Your task to perform on an android device: turn off smart reply in the gmail app Image 0: 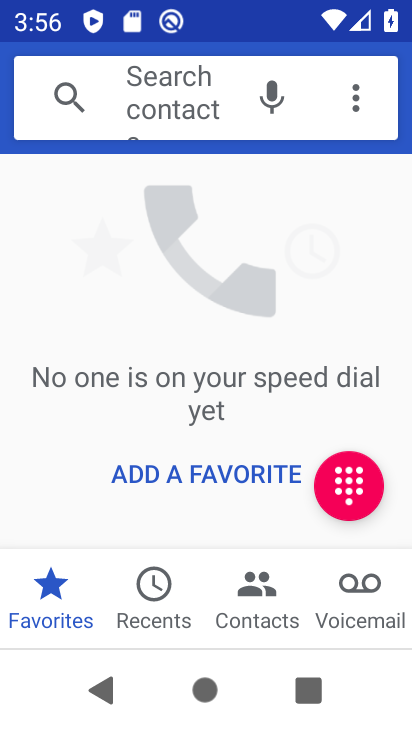
Step 0: press home button
Your task to perform on an android device: turn off smart reply in the gmail app Image 1: 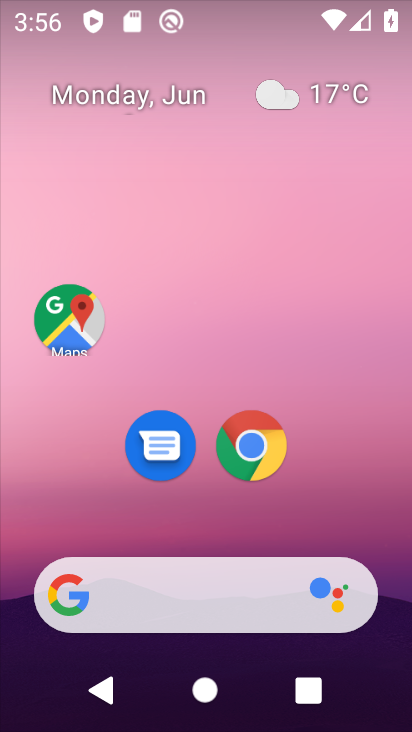
Step 1: drag from (227, 528) to (160, 65)
Your task to perform on an android device: turn off smart reply in the gmail app Image 2: 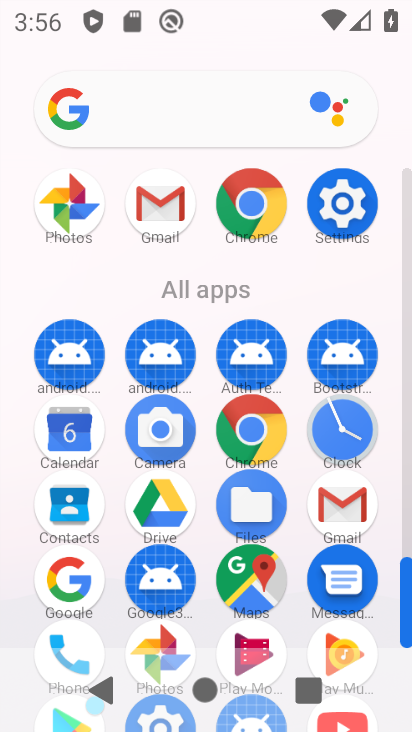
Step 2: click (161, 218)
Your task to perform on an android device: turn off smart reply in the gmail app Image 3: 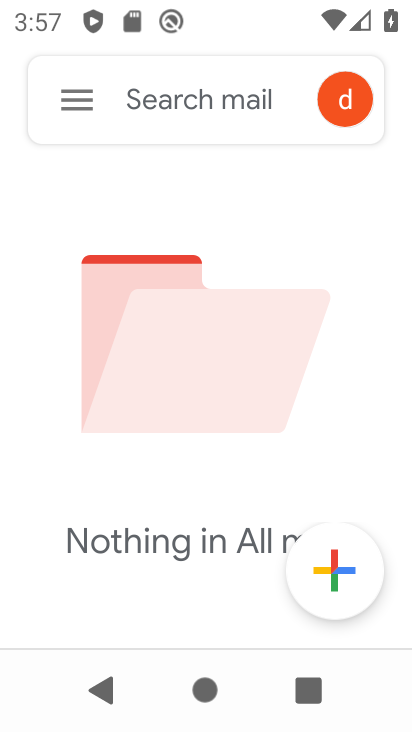
Step 3: click (76, 97)
Your task to perform on an android device: turn off smart reply in the gmail app Image 4: 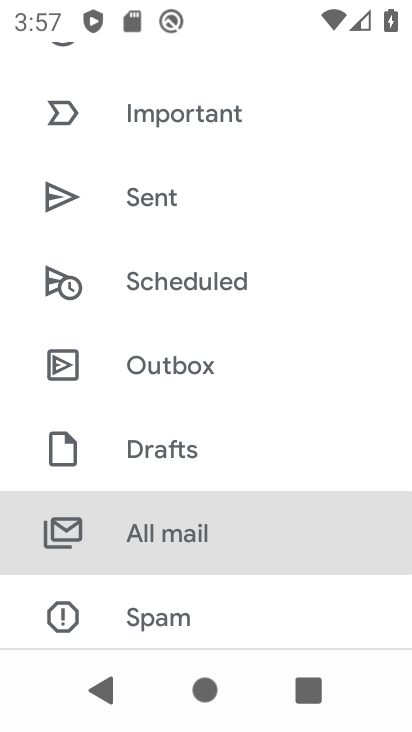
Step 4: drag from (256, 333) to (269, 498)
Your task to perform on an android device: turn off smart reply in the gmail app Image 5: 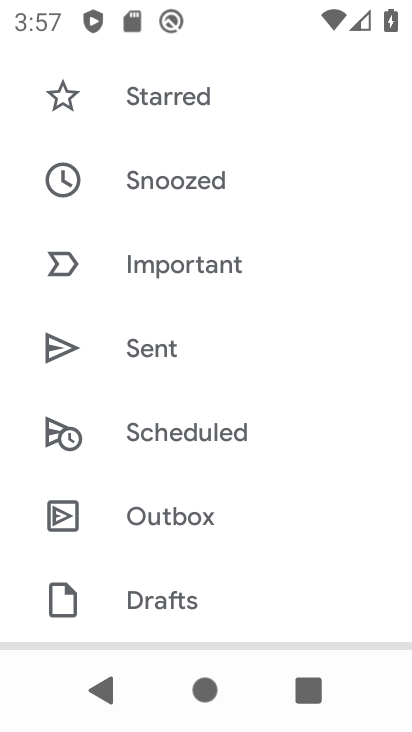
Step 5: drag from (264, 279) to (264, 484)
Your task to perform on an android device: turn off smart reply in the gmail app Image 6: 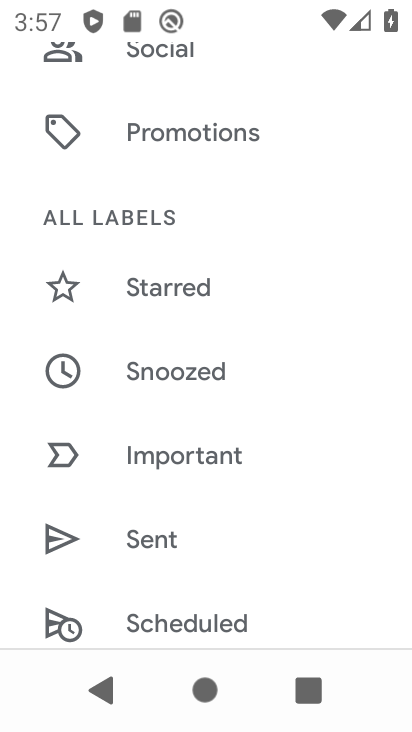
Step 6: drag from (265, 375) to (248, 550)
Your task to perform on an android device: turn off smart reply in the gmail app Image 7: 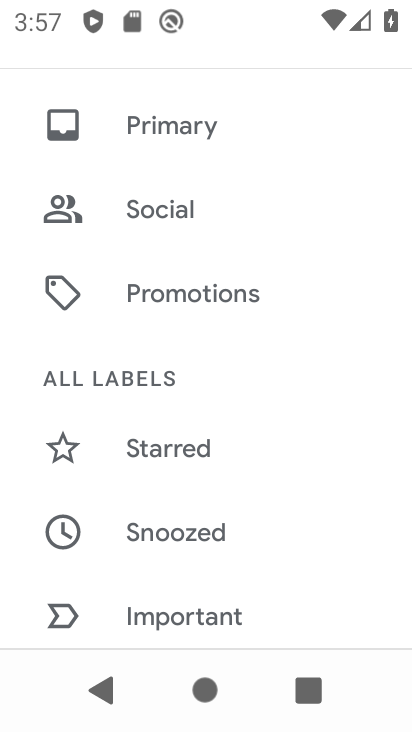
Step 7: drag from (230, 417) to (222, 615)
Your task to perform on an android device: turn off smart reply in the gmail app Image 8: 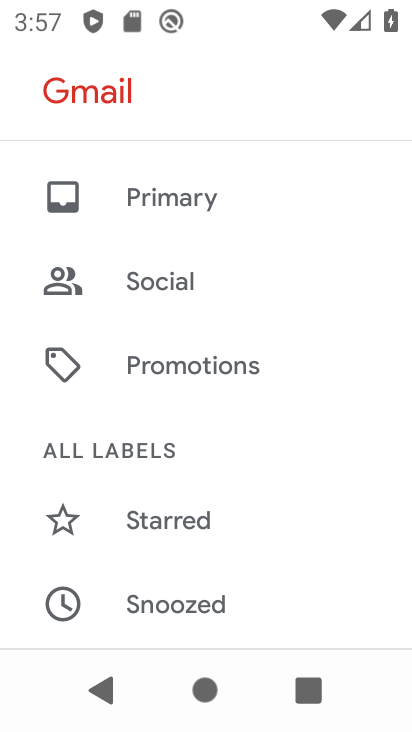
Step 8: drag from (281, 363) to (281, 561)
Your task to perform on an android device: turn off smart reply in the gmail app Image 9: 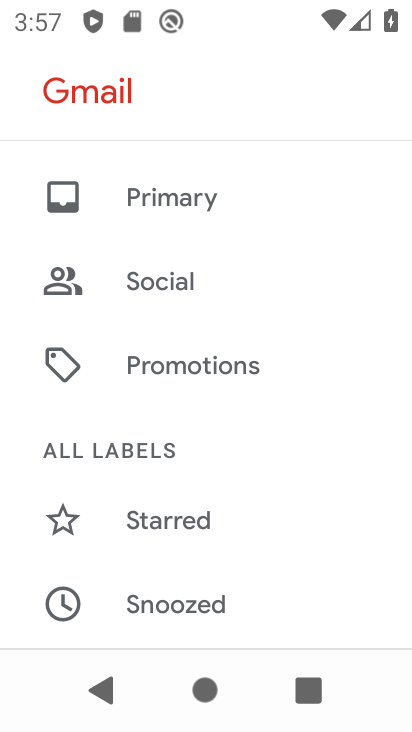
Step 9: drag from (235, 308) to (244, 503)
Your task to perform on an android device: turn off smart reply in the gmail app Image 10: 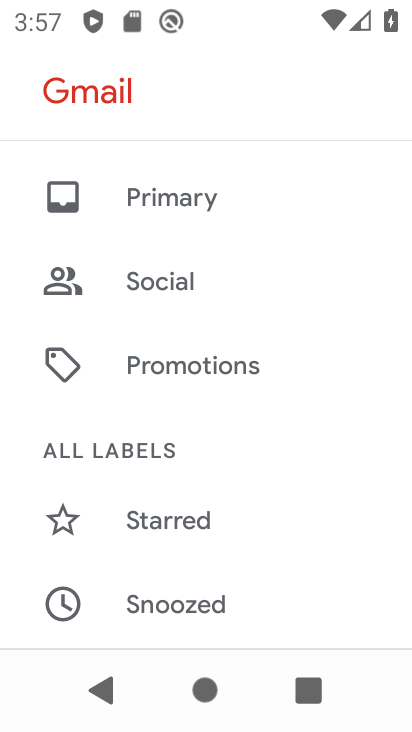
Step 10: drag from (228, 600) to (258, 234)
Your task to perform on an android device: turn off smart reply in the gmail app Image 11: 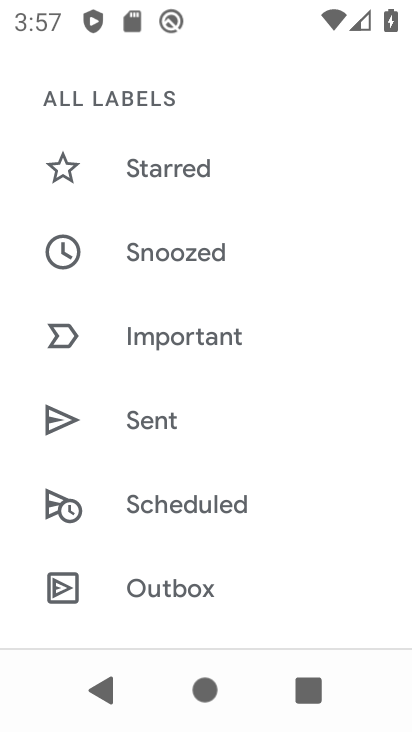
Step 11: drag from (201, 560) to (232, 201)
Your task to perform on an android device: turn off smart reply in the gmail app Image 12: 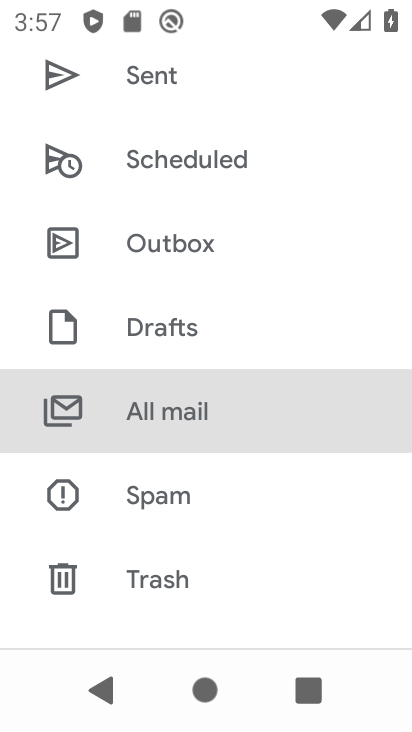
Step 12: drag from (241, 573) to (286, 216)
Your task to perform on an android device: turn off smart reply in the gmail app Image 13: 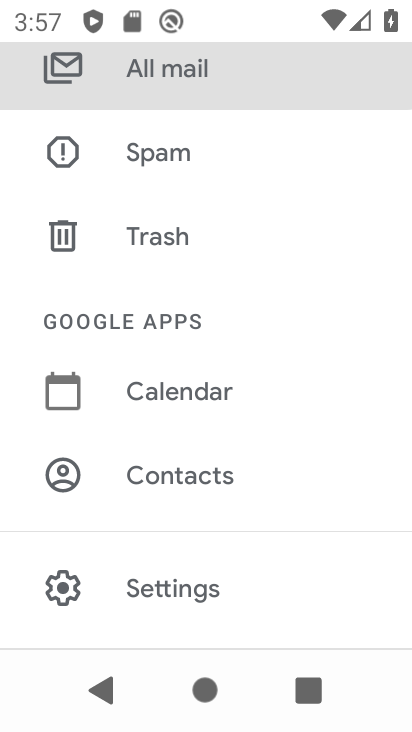
Step 13: drag from (197, 624) to (211, 338)
Your task to perform on an android device: turn off smart reply in the gmail app Image 14: 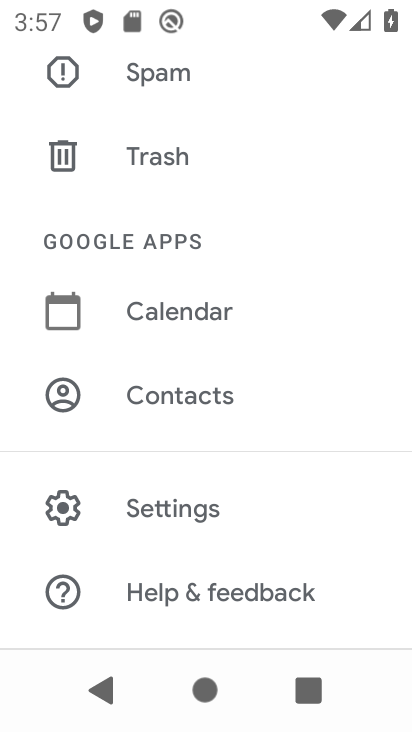
Step 14: click (186, 506)
Your task to perform on an android device: turn off smart reply in the gmail app Image 15: 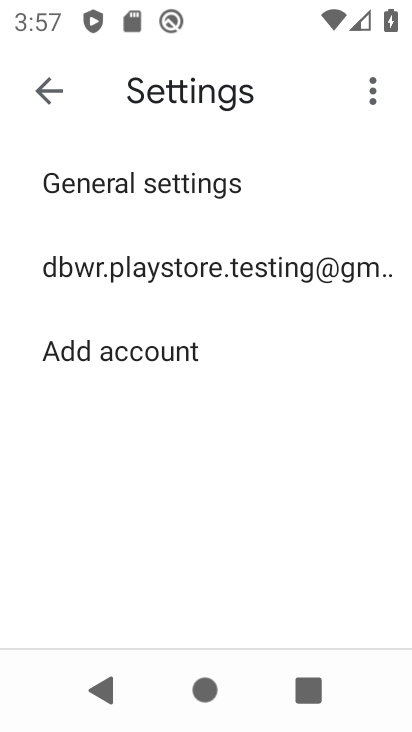
Step 15: click (202, 286)
Your task to perform on an android device: turn off smart reply in the gmail app Image 16: 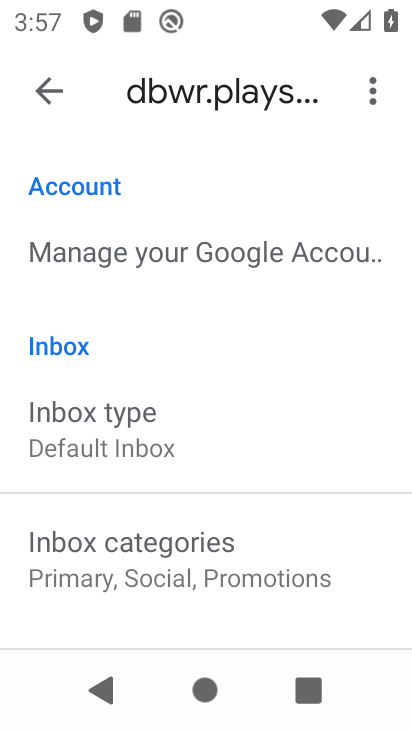
Step 16: drag from (207, 547) to (199, 242)
Your task to perform on an android device: turn off smart reply in the gmail app Image 17: 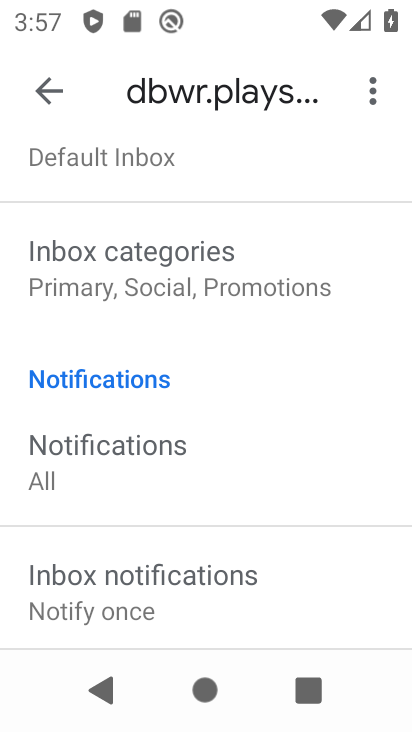
Step 17: drag from (173, 544) to (173, 264)
Your task to perform on an android device: turn off smart reply in the gmail app Image 18: 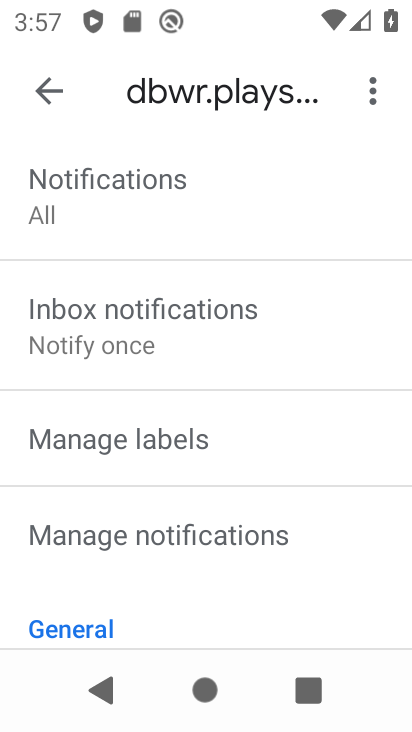
Step 18: drag from (155, 573) to (183, 236)
Your task to perform on an android device: turn off smart reply in the gmail app Image 19: 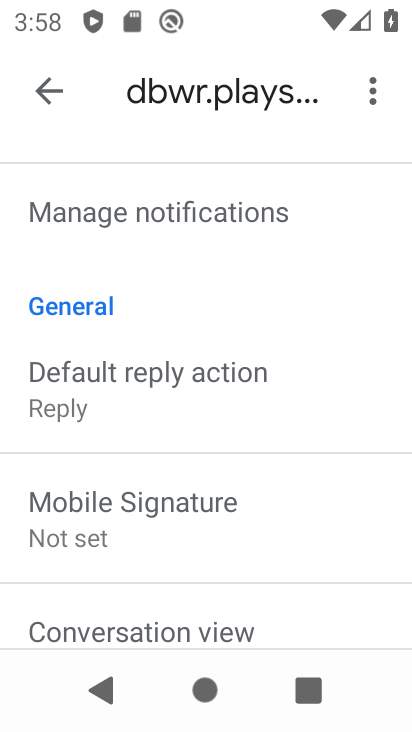
Step 19: drag from (201, 547) to (193, 288)
Your task to perform on an android device: turn off smart reply in the gmail app Image 20: 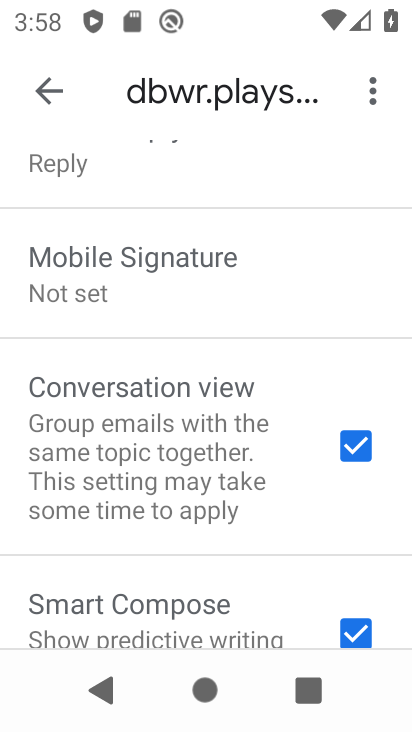
Step 20: drag from (192, 596) to (214, 342)
Your task to perform on an android device: turn off smart reply in the gmail app Image 21: 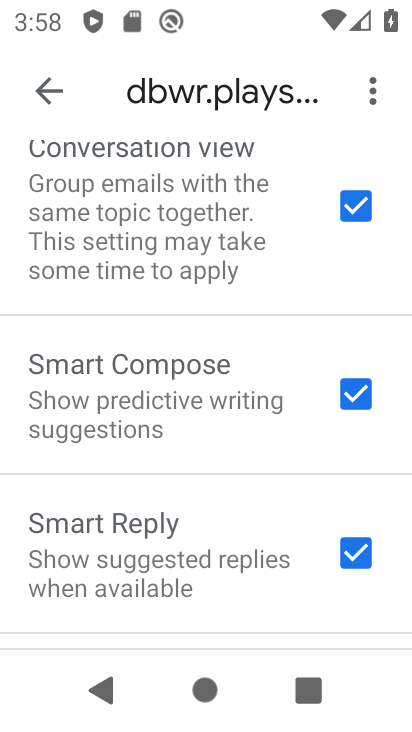
Step 21: click (354, 554)
Your task to perform on an android device: turn off smart reply in the gmail app Image 22: 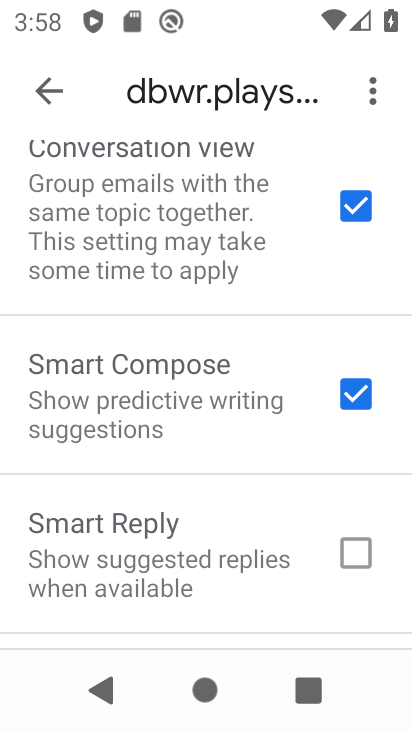
Step 22: task complete